Your task to perform on an android device: Do I have any events today? Image 0: 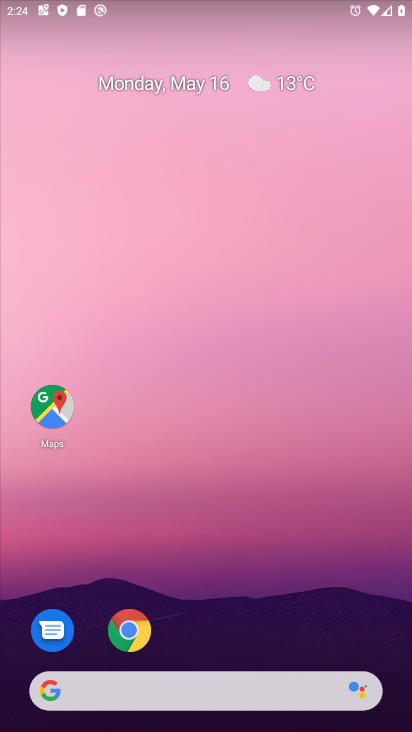
Step 0: click (187, 73)
Your task to perform on an android device: Do I have any events today? Image 1: 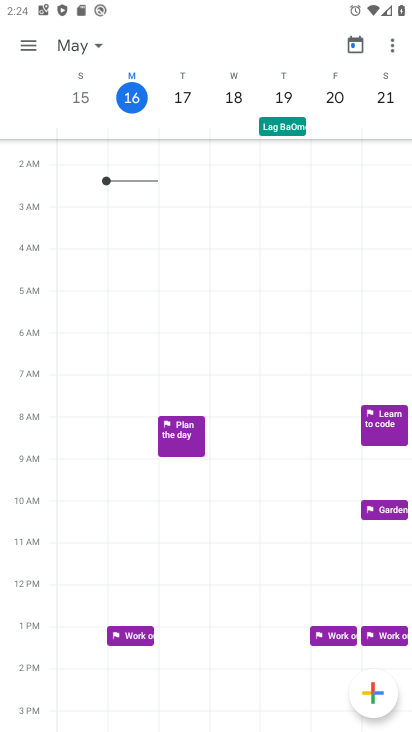
Step 1: click (22, 42)
Your task to perform on an android device: Do I have any events today? Image 2: 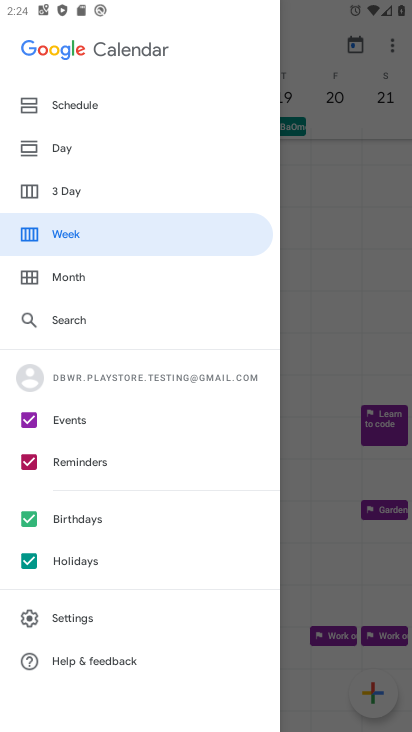
Step 2: click (83, 104)
Your task to perform on an android device: Do I have any events today? Image 3: 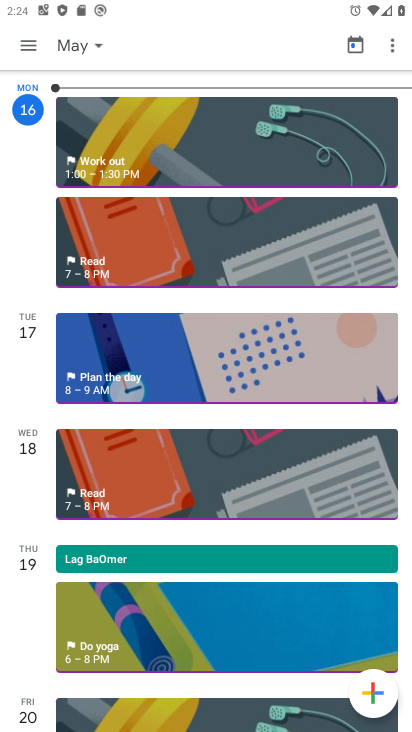
Step 3: task complete